Your task to perform on an android device: Check the weather Image 0: 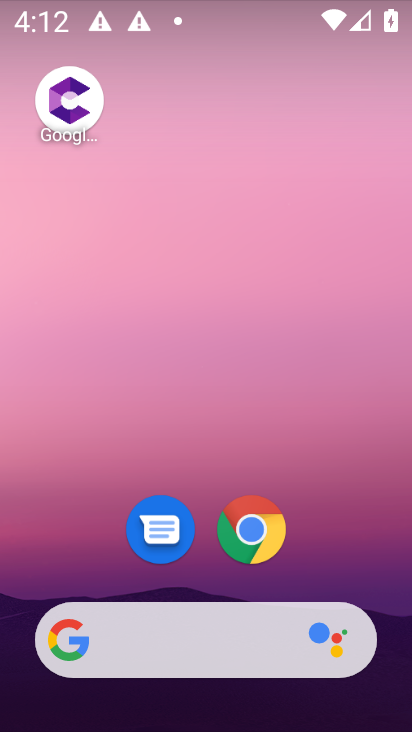
Step 0: click (210, 625)
Your task to perform on an android device: Check the weather Image 1: 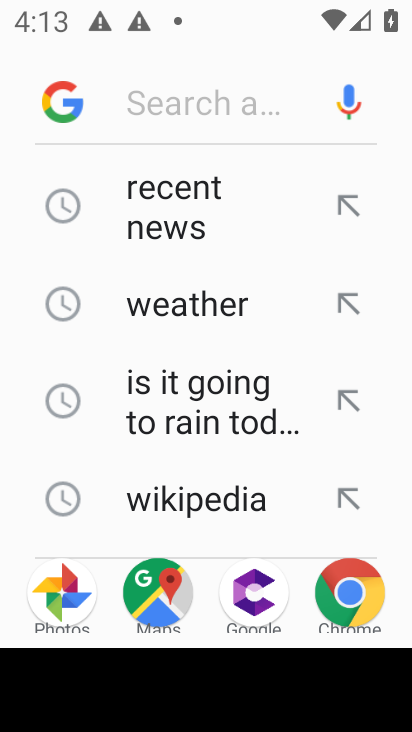
Step 1: click (223, 321)
Your task to perform on an android device: Check the weather Image 2: 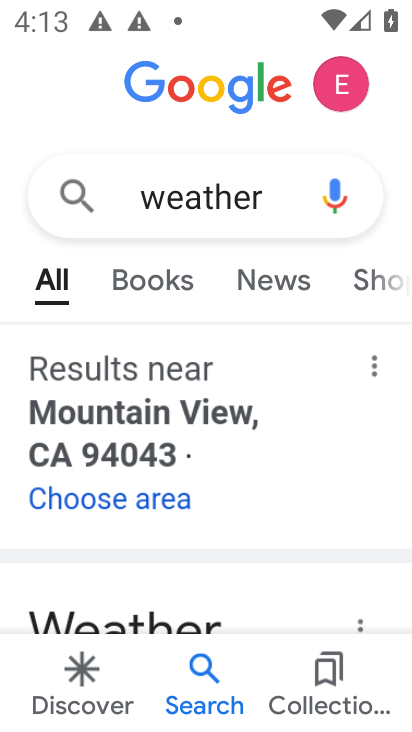
Step 2: task complete